Your task to perform on an android device: Show me popular videos on Youtube Image 0: 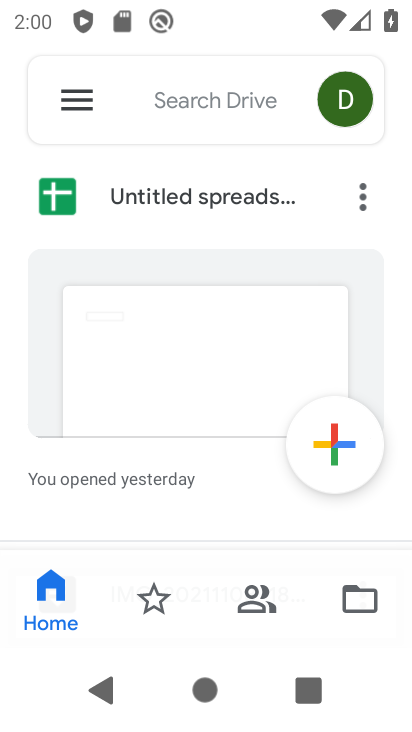
Step 0: press home button
Your task to perform on an android device: Show me popular videos on Youtube Image 1: 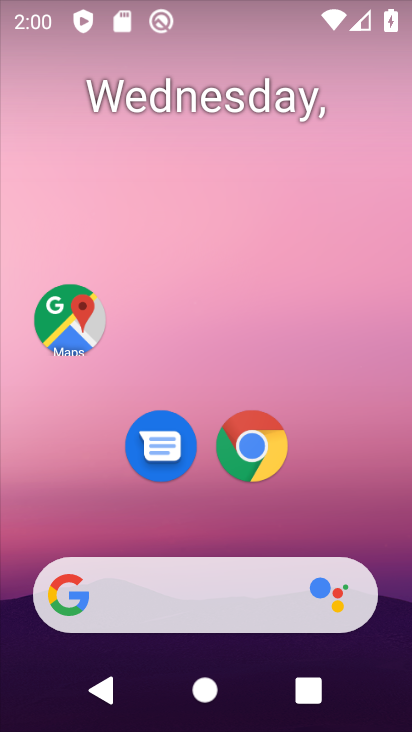
Step 1: drag from (205, 598) to (266, 68)
Your task to perform on an android device: Show me popular videos on Youtube Image 2: 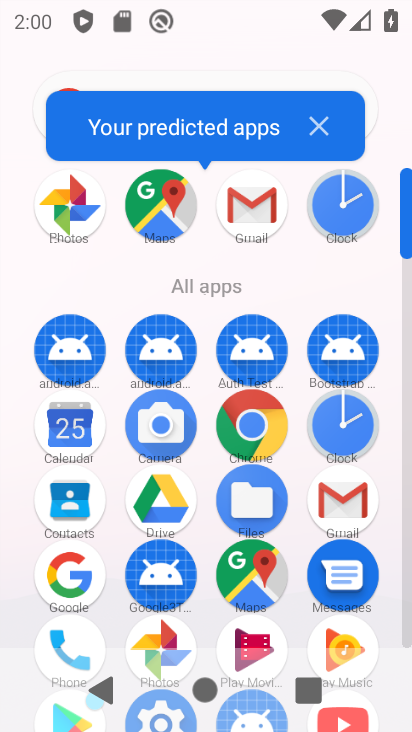
Step 2: drag from (286, 607) to (333, 110)
Your task to perform on an android device: Show me popular videos on Youtube Image 3: 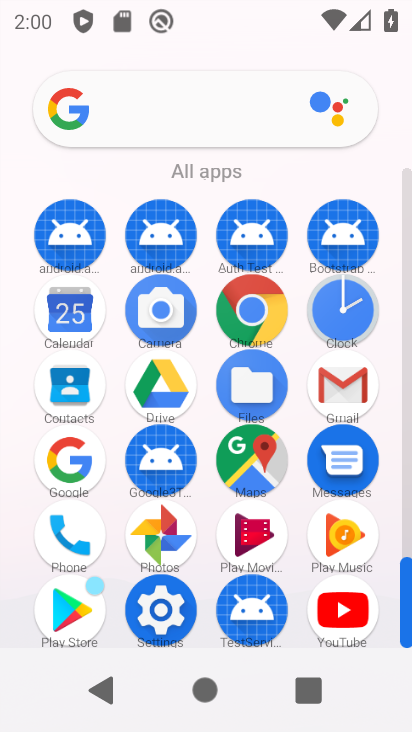
Step 3: click (326, 615)
Your task to perform on an android device: Show me popular videos on Youtube Image 4: 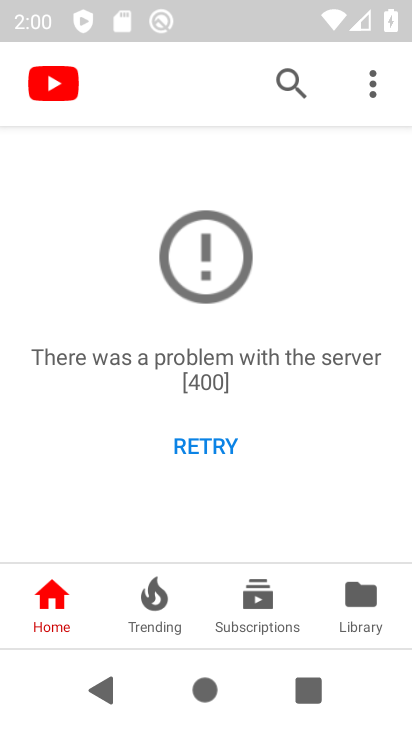
Step 4: task complete